Your task to perform on an android device: Go to Amazon Image 0: 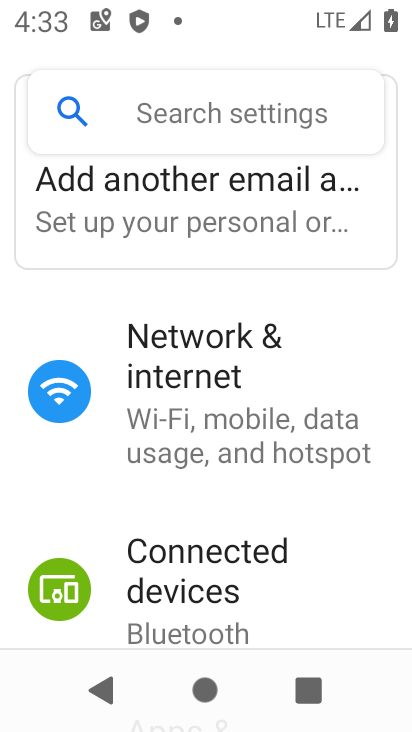
Step 0: press home button
Your task to perform on an android device: Go to Amazon Image 1: 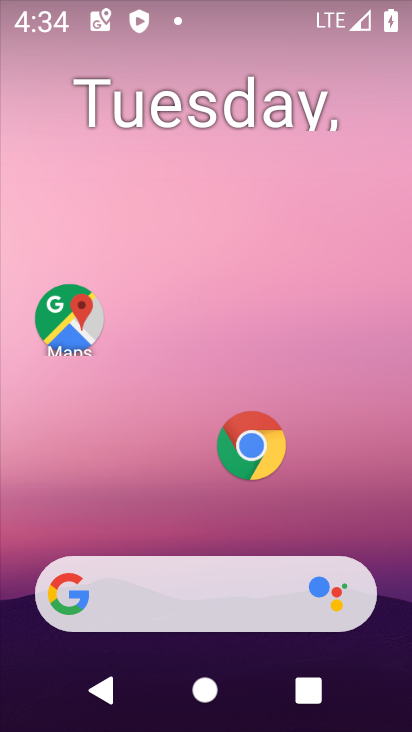
Step 1: click (272, 451)
Your task to perform on an android device: Go to Amazon Image 2: 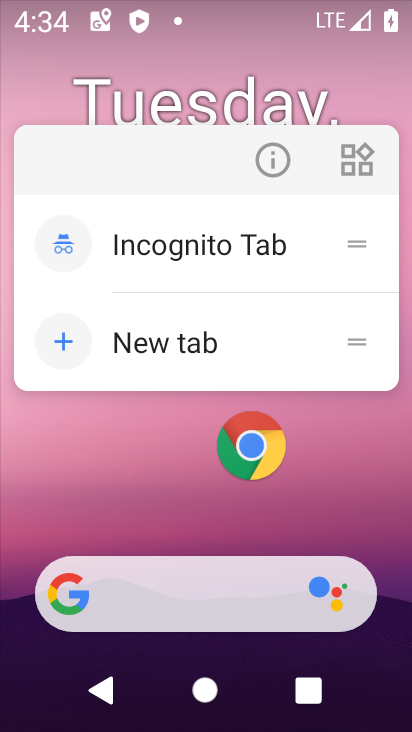
Step 2: click (272, 451)
Your task to perform on an android device: Go to Amazon Image 3: 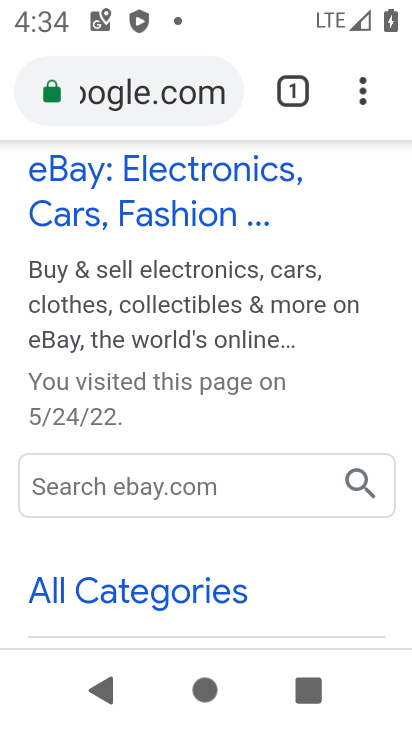
Step 3: click (177, 105)
Your task to perform on an android device: Go to Amazon Image 4: 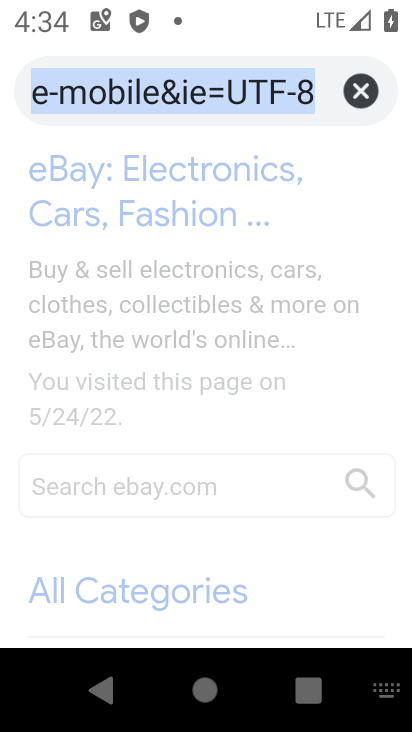
Step 4: type "Amazon"
Your task to perform on an android device: Go to Amazon Image 5: 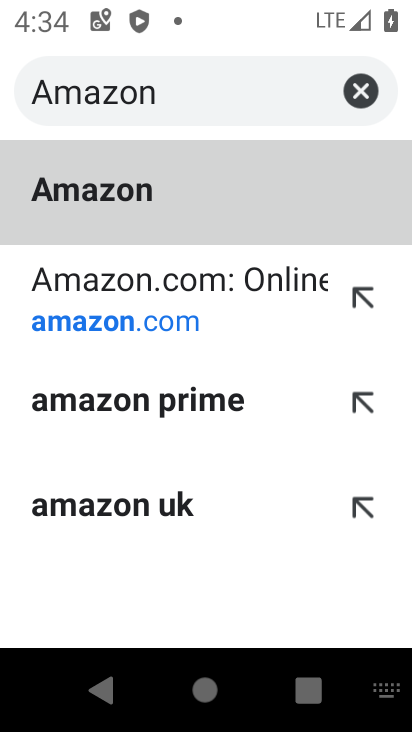
Step 5: click (88, 283)
Your task to perform on an android device: Go to Amazon Image 6: 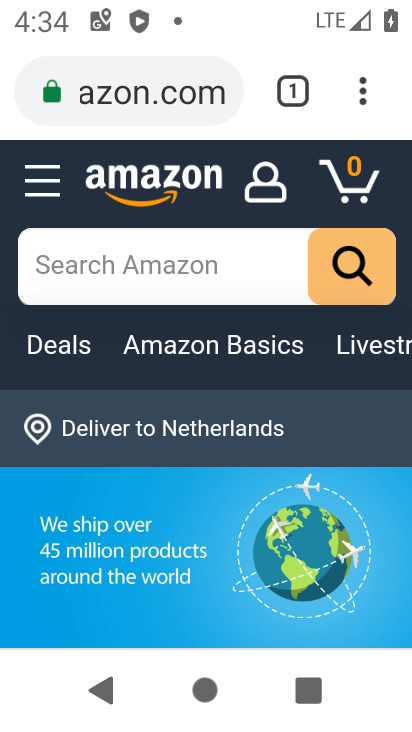
Step 6: task complete